Your task to perform on an android device: find snoozed emails in the gmail app Image 0: 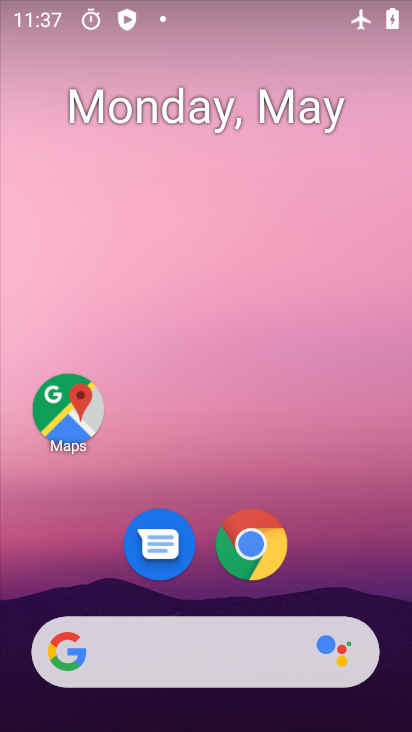
Step 0: drag from (328, 571) to (281, 126)
Your task to perform on an android device: find snoozed emails in the gmail app Image 1: 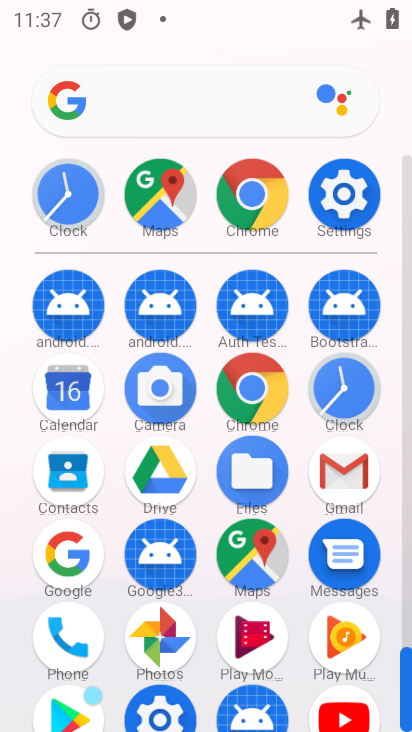
Step 1: click (354, 478)
Your task to perform on an android device: find snoozed emails in the gmail app Image 2: 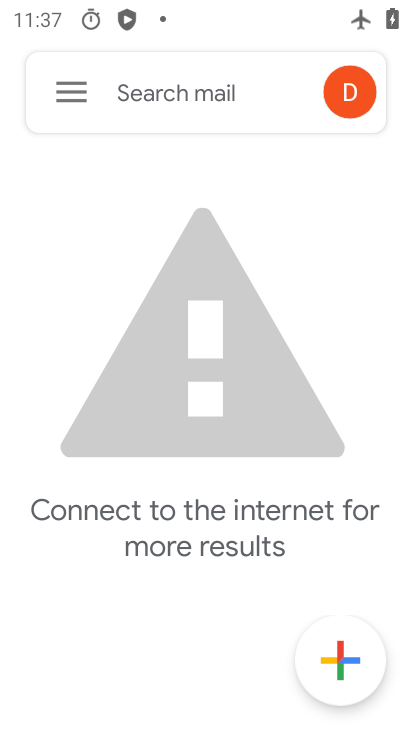
Step 2: click (68, 93)
Your task to perform on an android device: find snoozed emails in the gmail app Image 3: 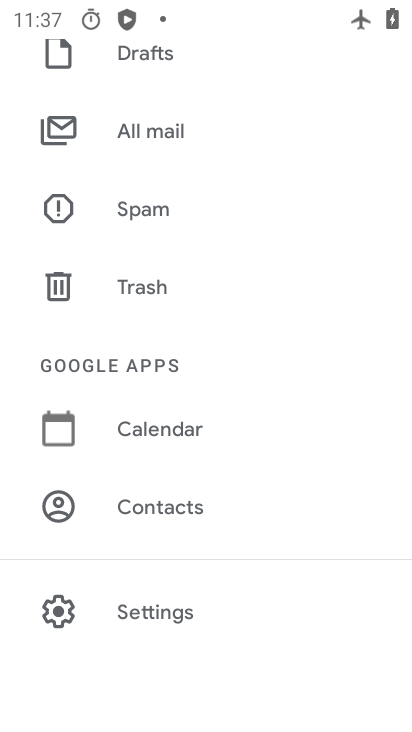
Step 3: drag from (274, 218) to (290, 645)
Your task to perform on an android device: find snoozed emails in the gmail app Image 4: 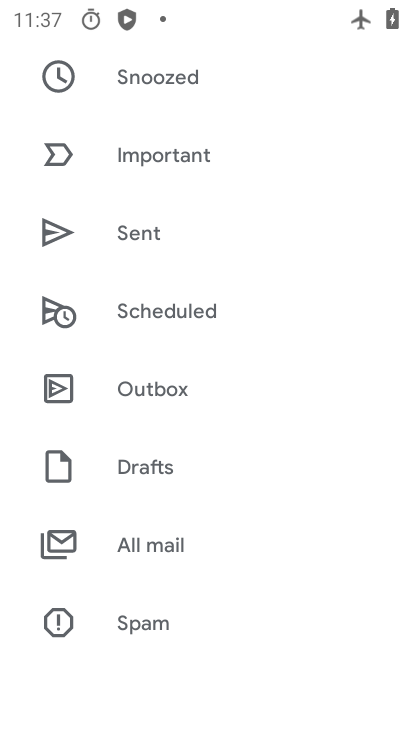
Step 4: drag from (233, 205) to (234, 499)
Your task to perform on an android device: find snoozed emails in the gmail app Image 5: 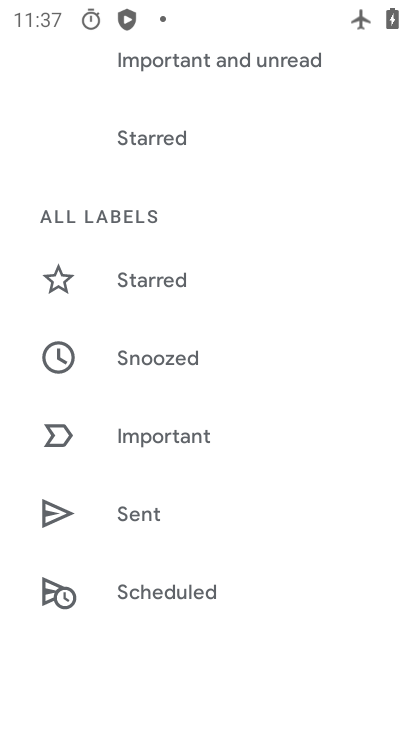
Step 5: click (222, 362)
Your task to perform on an android device: find snoozed emails in the gmail app Image 6: 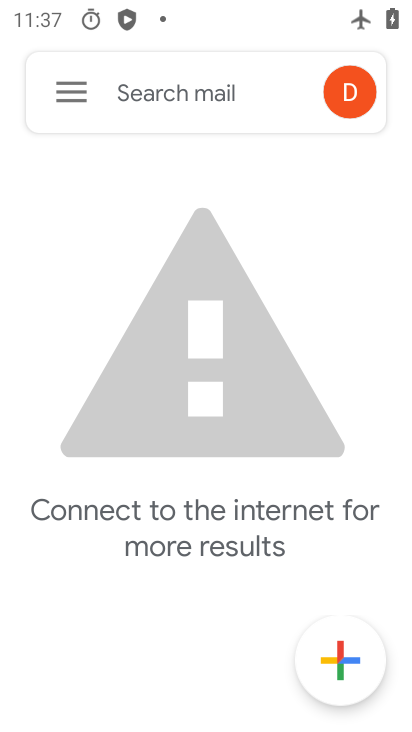
Step 6: task complete